Your task to perform on an android device: Show me the alarms in the clock app Image 0: 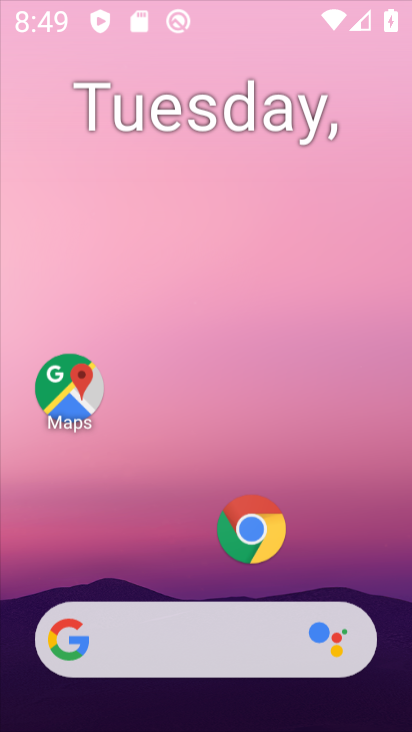
Step 0: press home button
Your task to perform on an android device: Show me the alarms in the clock app Image 1: 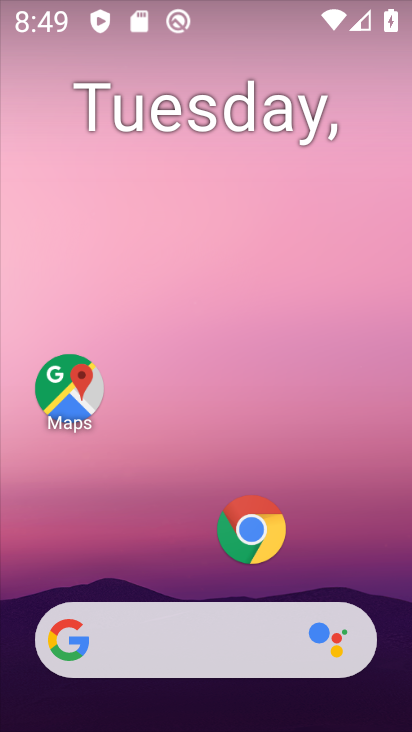
Step 1: drag from (192, 571) to (190, 26)
Your task to perform on an android device: Show me the alarms in the clock app Image 2: 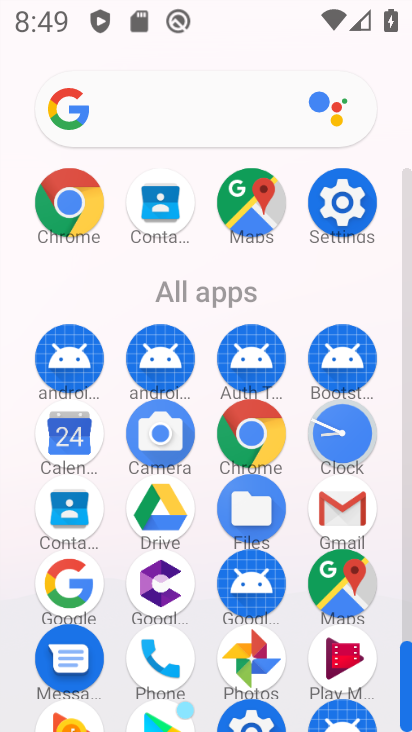
Step 2: click (342, 425)
Your task to perform on an android device: Show me the alarms in the clock app Image 3: 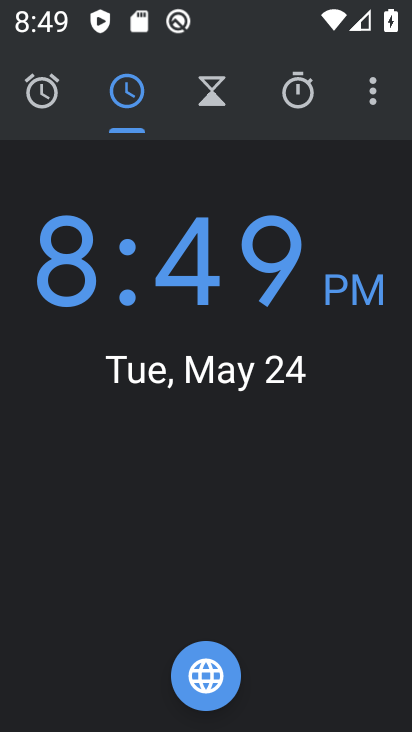
Step 3: click (44, 86)
Your task to perform on an android device: Show me the alarms in the clock app Image 4: 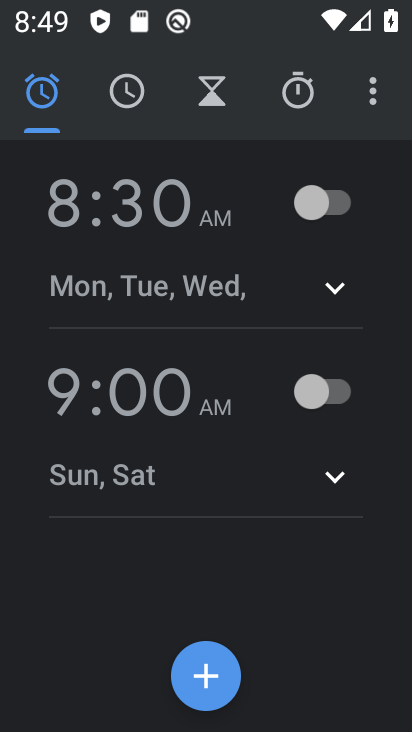
Step 4: click (344, 200)
Your task to perform on an android device: Show me the alarms in the clock app Image 5: 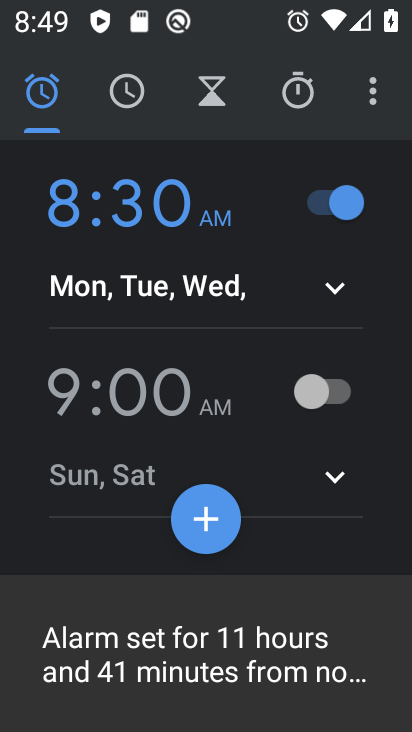
Step 5: task complete